Your task to perform on an android device: clear history in the chrome app Image 0: 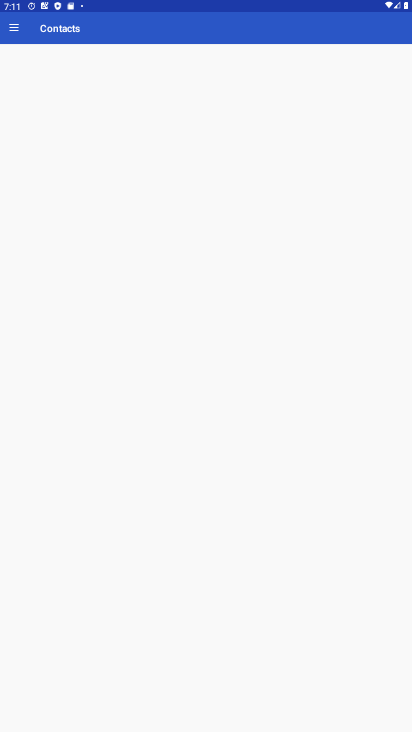
Step 0: drag from (379, 661) to (194, 127)
Your task to perform on an android device: clear history in the chrome app Image 1: 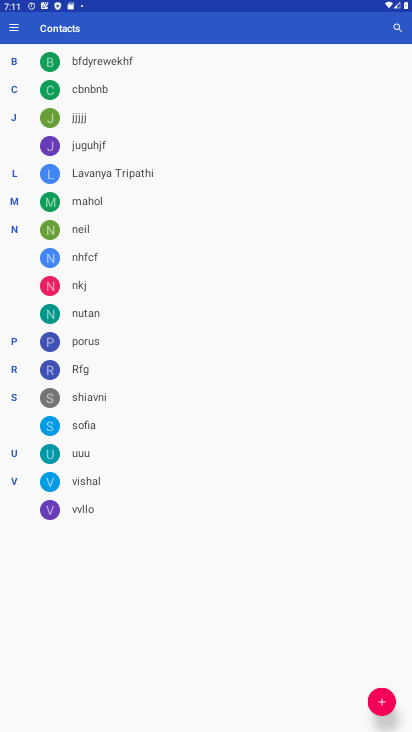
Step 1: press home button
Your task to perform on an android device: clear history in the chrome app Image 2: 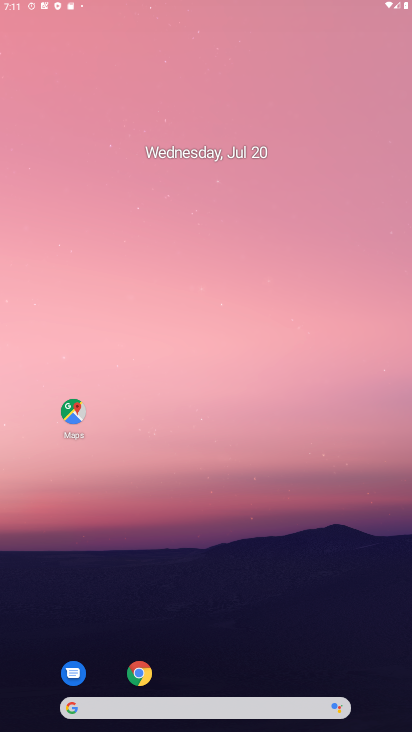
Step 2: drag from (371, 677) to (96, 7)
Your task to perform on an android device: clear history in the chrome app Image 3: 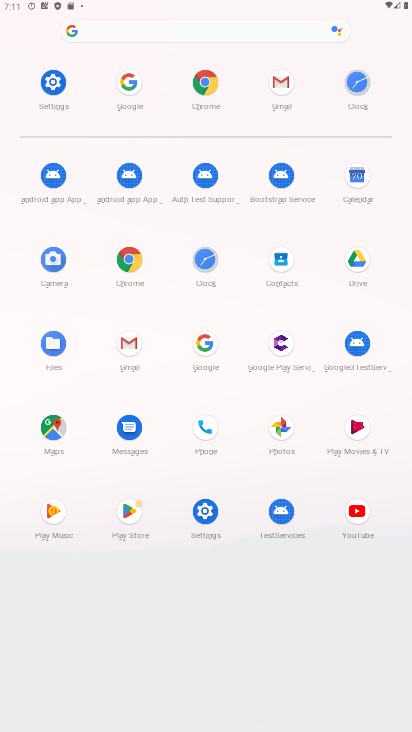
Step 3: click (129, 259)
Your task to perform on an android device: clear history in the chrome app Image 4: 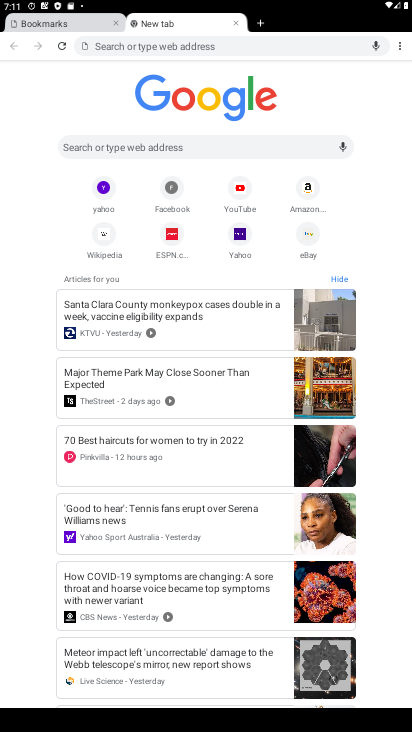
Step 4: click (397, 45)
Your task to perform on an android device: clear history in the chrome app Image 5: 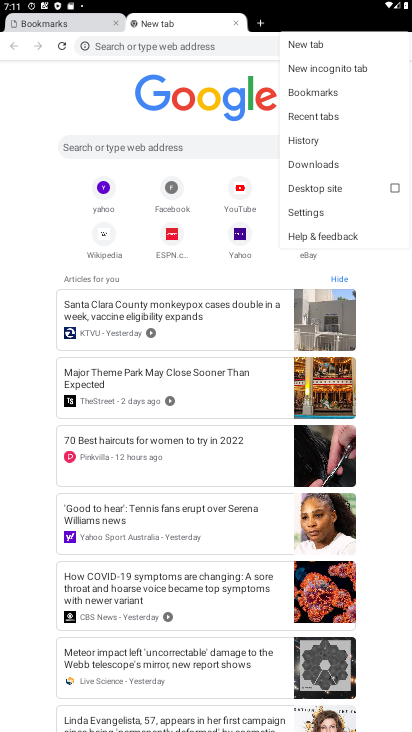
Step 5: click (312, 145)
Your task to perform on an android device: clear history in the chrome app Image 6: 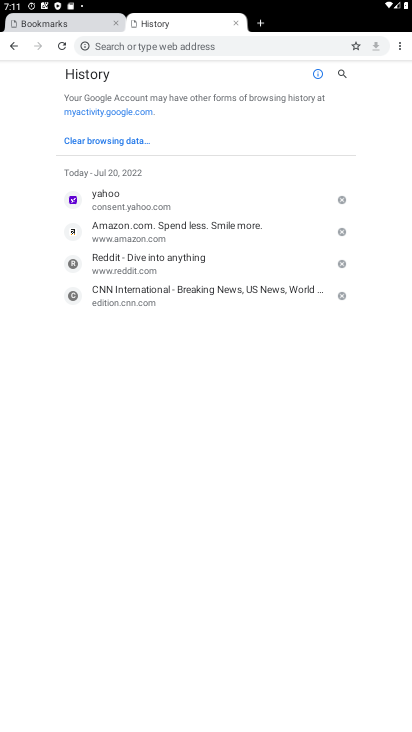
Step 6: click (60, 144)
Your task to perform on an android device: clear history in the chrome app Image 7: 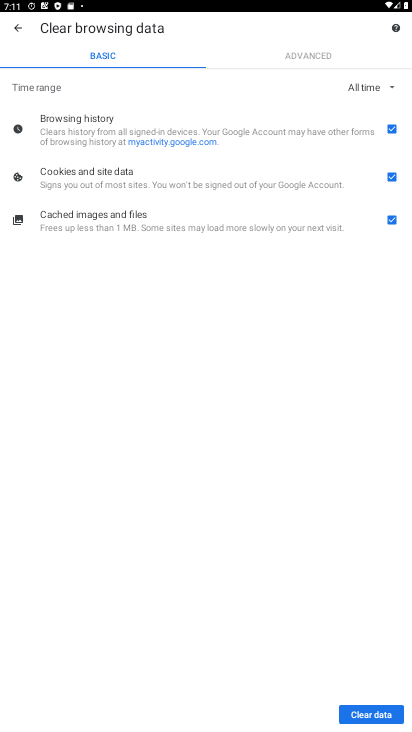
Step 7: click (360, 710)
Your task to perform on an android device: clear history in the chrome app Image 8: 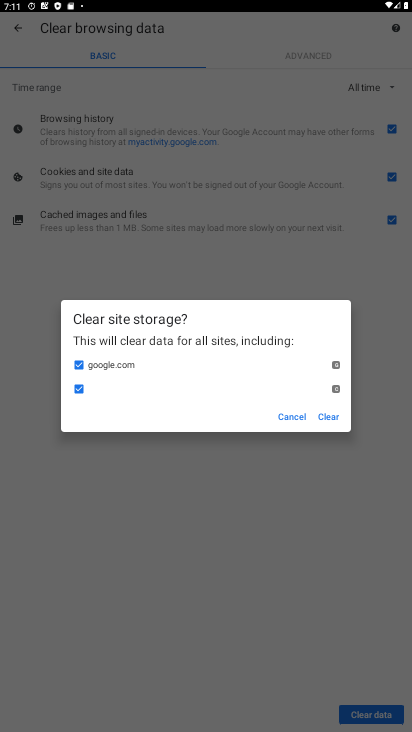
Step 8: click (323, 418)
Your task to perform on an android device: clear history in the chrome app Image 9: 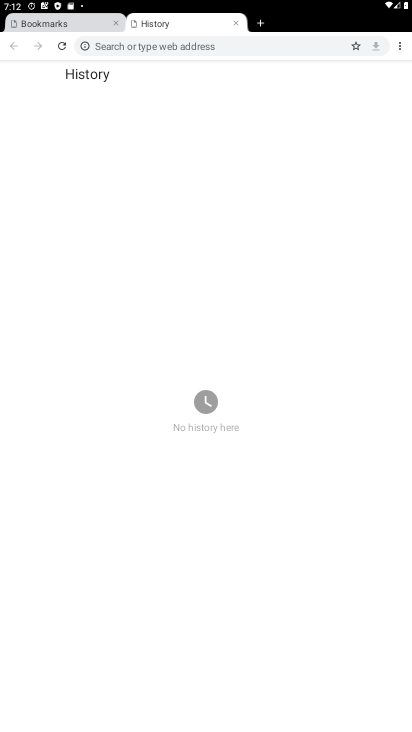
Step 9: task complete